Your task to perform on an android device: delete browsing data in the chrome app Image 0: 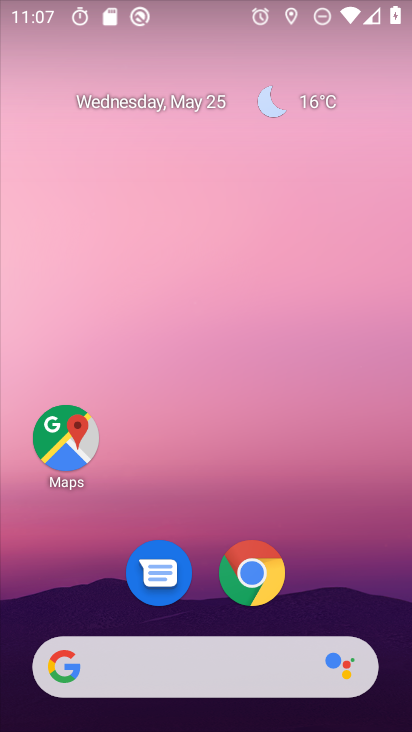
Step 0: click (248, 585)
Your task to perform on an android device: delete browsing data in the chrome app Image 1: 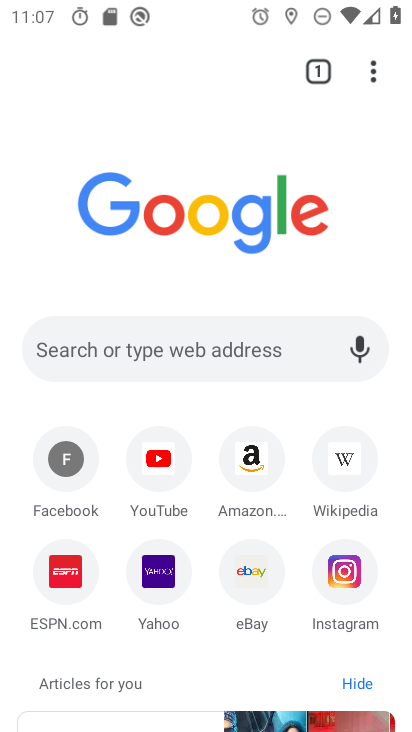
Step 1: click (375, 69)
Your task to perform on an android device: delete browsing data in the chrome app Image 2: 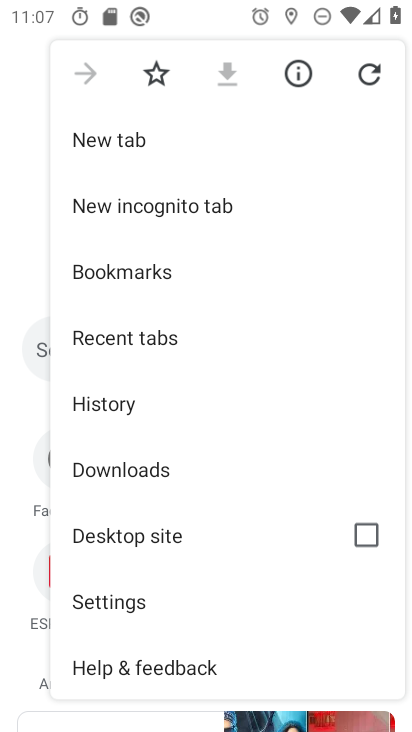
Step 2: click (129, 605)
Your task to perform on an android device: delete browsing data in the chrome app Image 3: 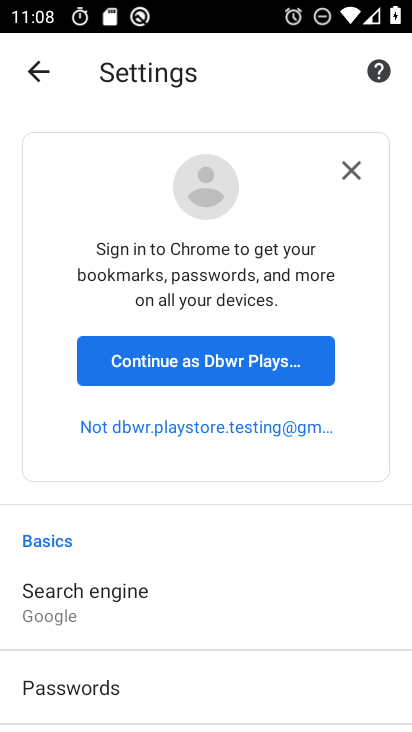
Step 3: click (167, 355)
Your task to perform on an android device: delete browsing data in the chrome app Image 4: 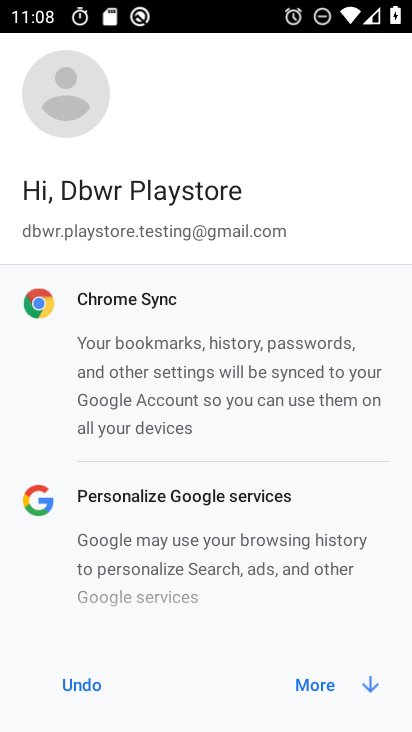
Step 4: click (327, 681)
Your task to perform on an android device: delete browsing data in the chrome app Image 5: 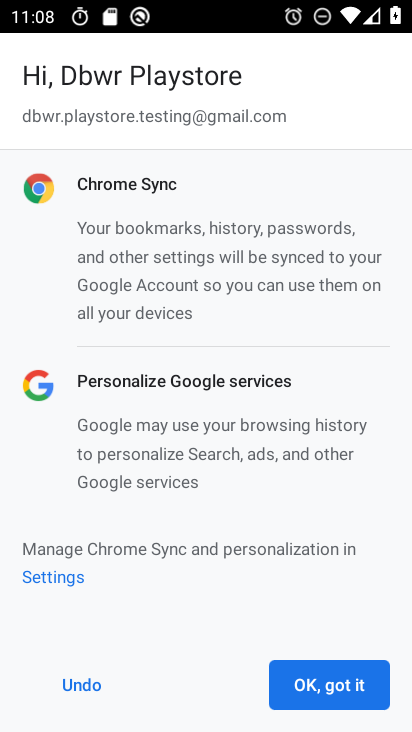
Step 5: click (327, 681)
Your task to perform on an android device: delete browsing data in the chrome app Image 6: 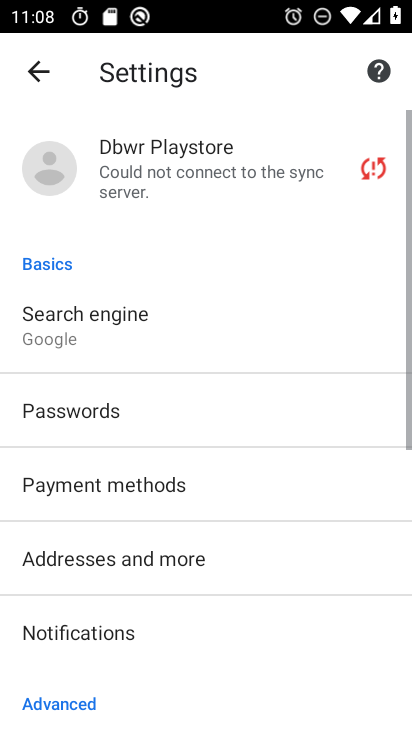
Step 6: drag from (121, 604) to (101, 163)
Your task to perform on an android device: delete browsing data in the chrome app Image 7: 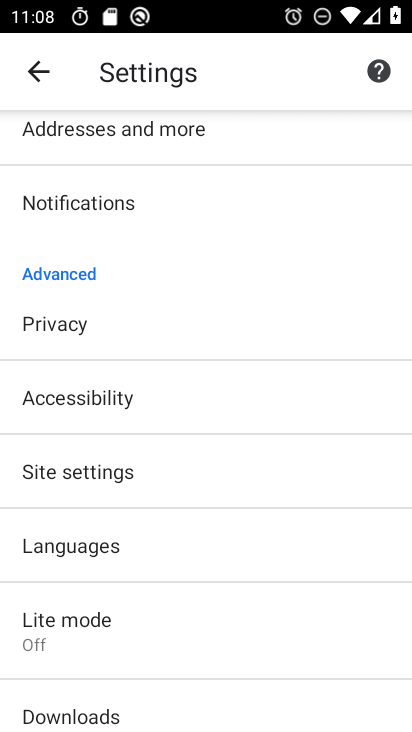
Step 7: click (62, 321)
Your task to perform on an android device: delete browsing data in the chrome app Image 8: 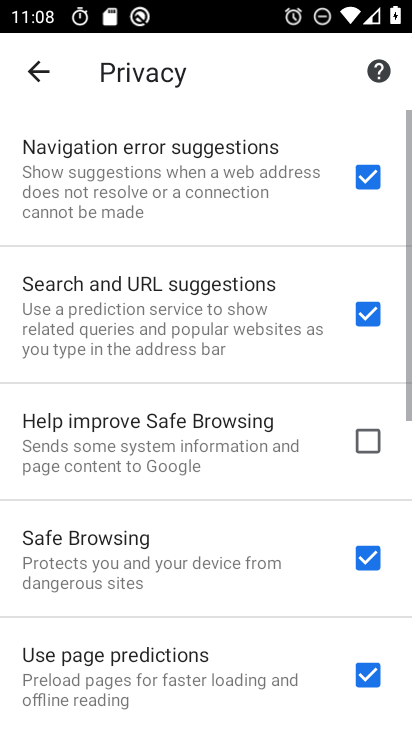
Step 8: drag from (133, 519) to (129, 131)
Your task to perform on an android device: delete browsing data in the chrome app Image 9: 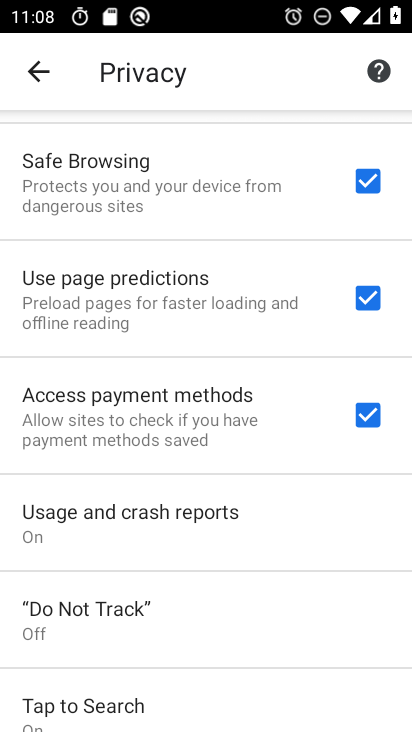
Step 9: drag from (127, 592) to (140, 289)
Your task to perform on an android device: delete browsing data in the chrome app Image 10: 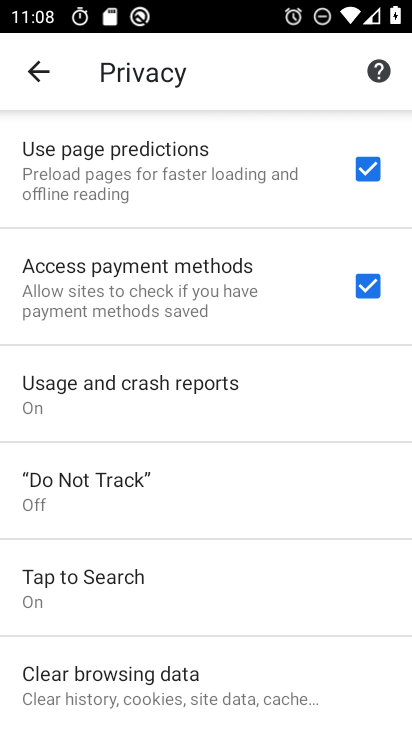
Step 10: click (108, 694)
Your task to perform on an android device: delete browsing data in the chrome app Image 11: 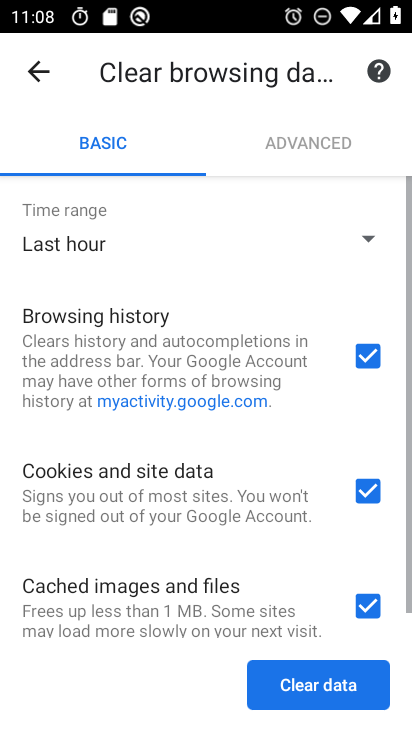
Step 11: click (361, 488)
Your task to perform on an android device: delete browsing data in the chrome app Image 12: 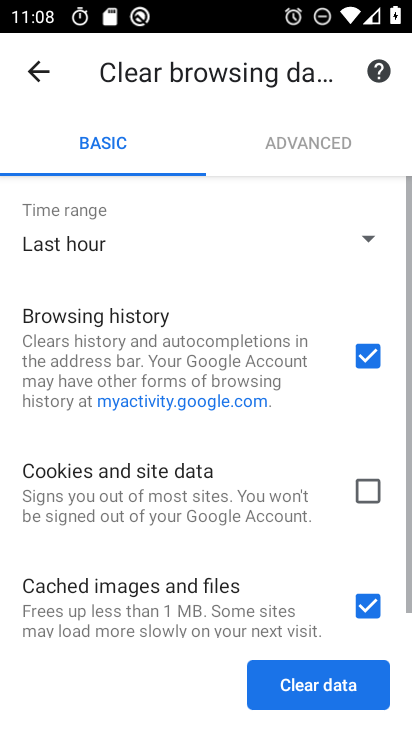
Step 12: click (357, 591)
Your task to perform on an android device: delete browsing data in the chrome app Image 13: 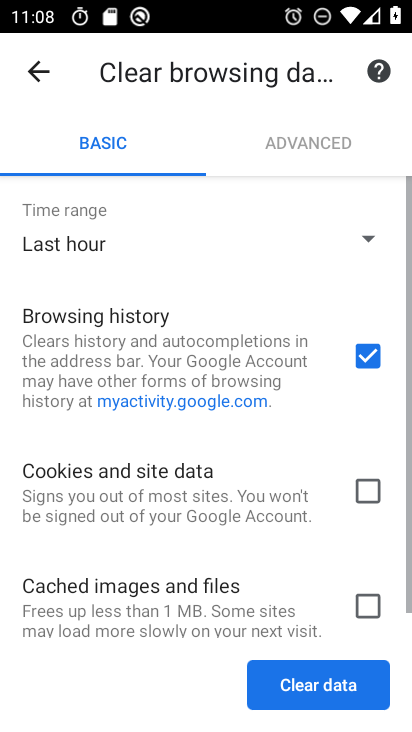
Step 13: click (311, 673)
Your task to perform on an android device: delete browsing data in the chrome app Image 14: 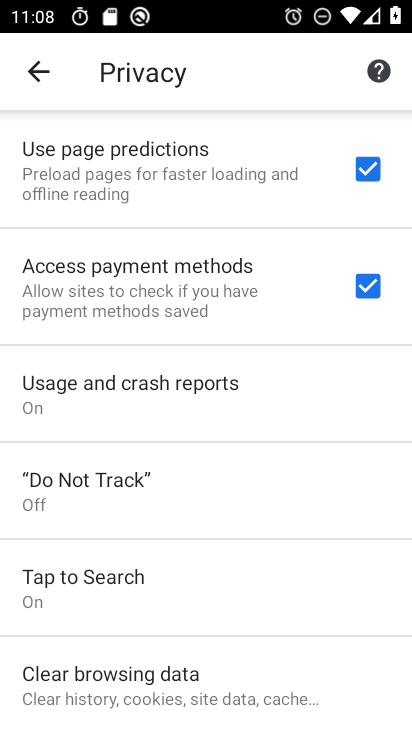
Step 14: task complete